Your task to perform on an android device: delete location history Image 0: 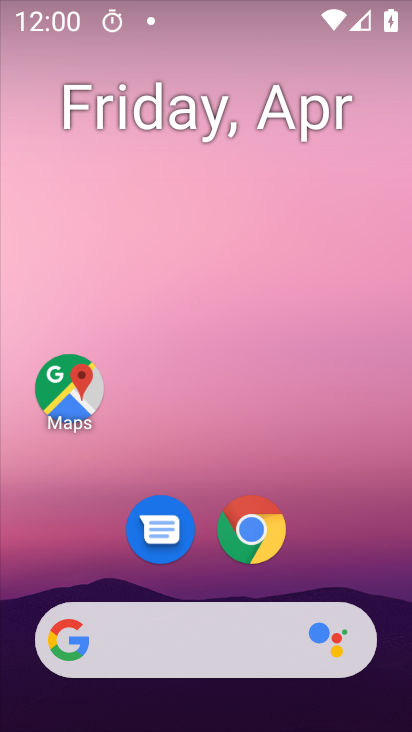
Step 0: drag from (289, 566) to (319, 178)
Your task to perform on an android device: delete location history Image 1: 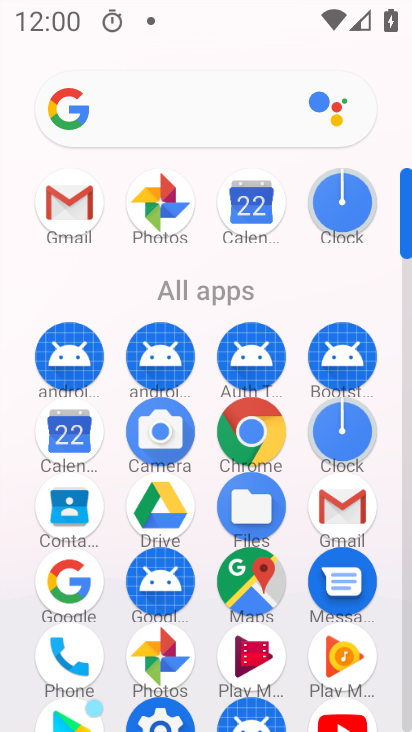
Step 1: drag from (203, 547) to (247, 222)
Your task to perform on an android device: delete location history Image 2: 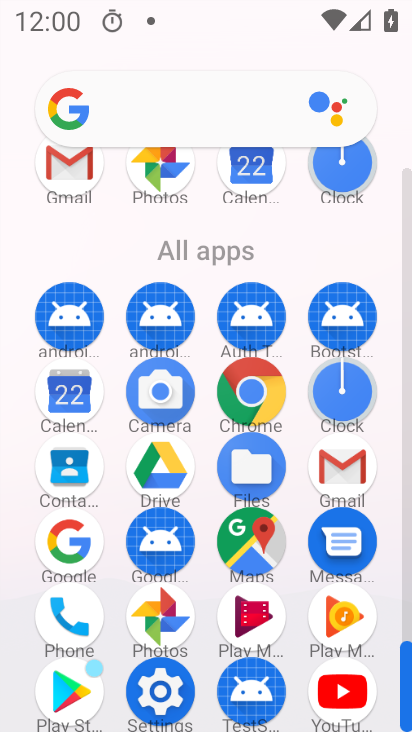
Step 2: click (159, 699)
Your task to perform on an android device: delete location history Image 3: 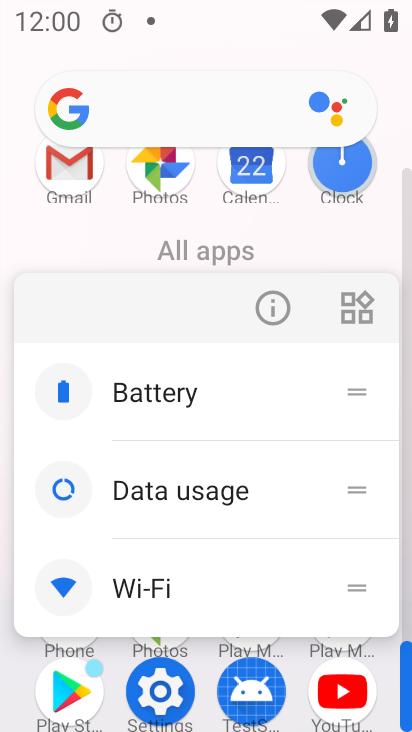
Step 3: click (159, 699)
Your task to perform on an android device: delete location history Image 4: 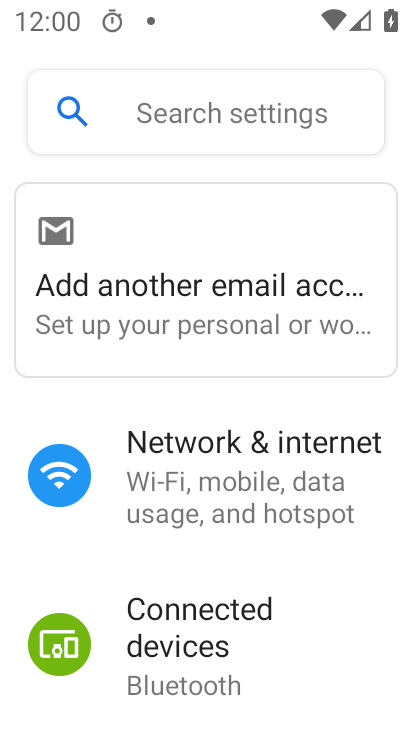
Step 4: drag from (178, 640) to (180, 400)
Your task to perform on an android device: delete location history Image 5: 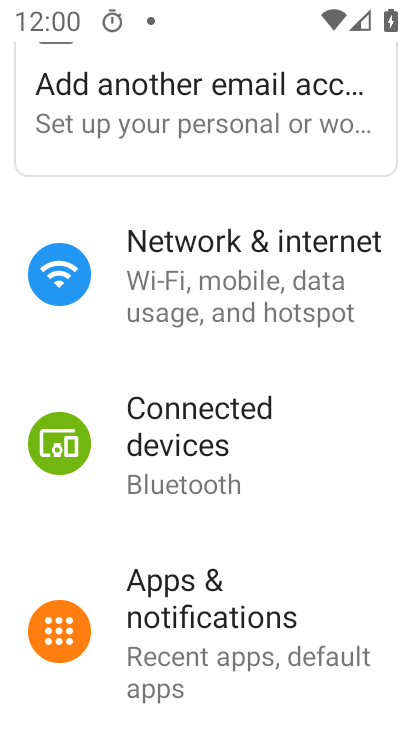
Step 5: drag from (158, 620) to (251, 263)
Your task to perform on an android device: delete location history Image 6: 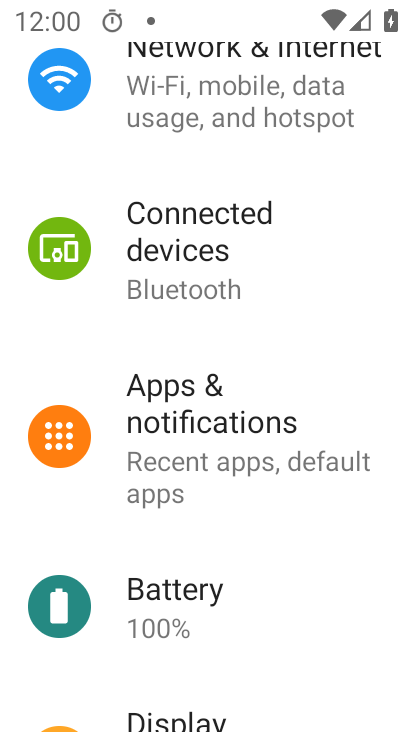
Step 6: drag from (171, 610) to (270, 154)
Your task to perform on an android device: delete location history Image 7: 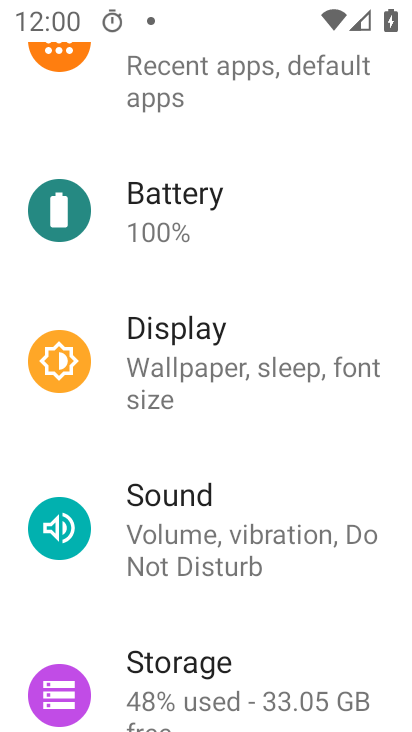
Step 7: drag from (193, 583) to (292, 131)
Your task to perform on an android device: delete location history Image 8: 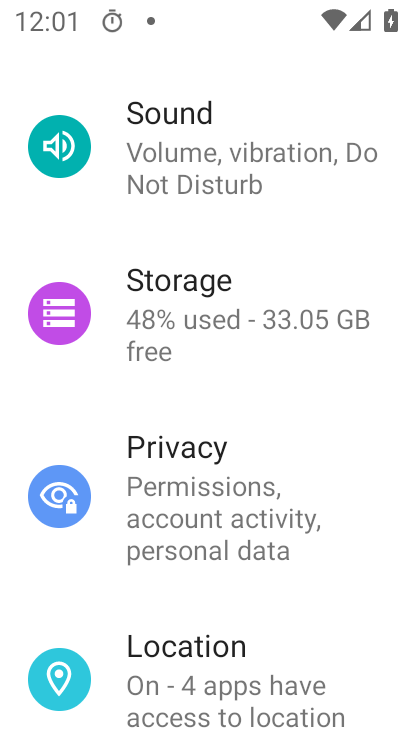
Step 8: click (153, 665)
Your task to perform on an android device: delete location history Image 9: 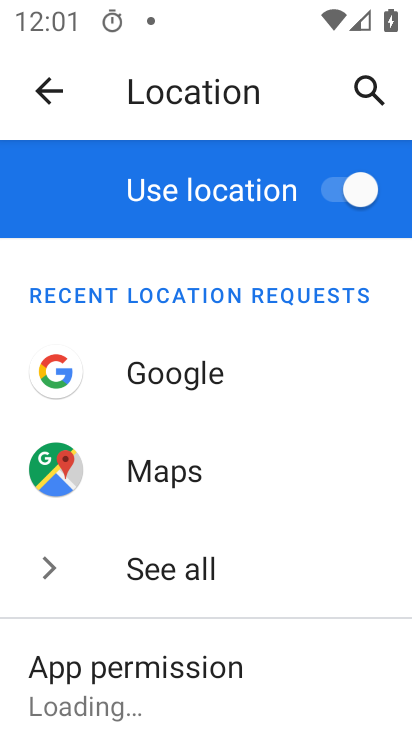
Step 9: drag from (118, 618) to (252, 170)
Your task to perform on an android device: delete location history Image 10: 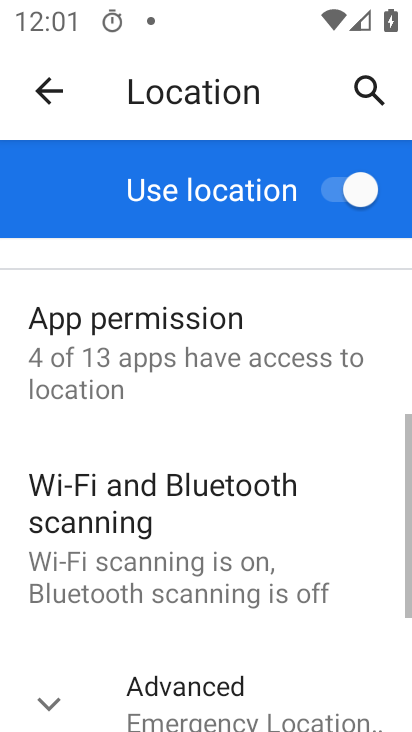
Step 10: drag from (177, 611) to (232, 348)
Your task to perform on an android device: delete location history Image 11: 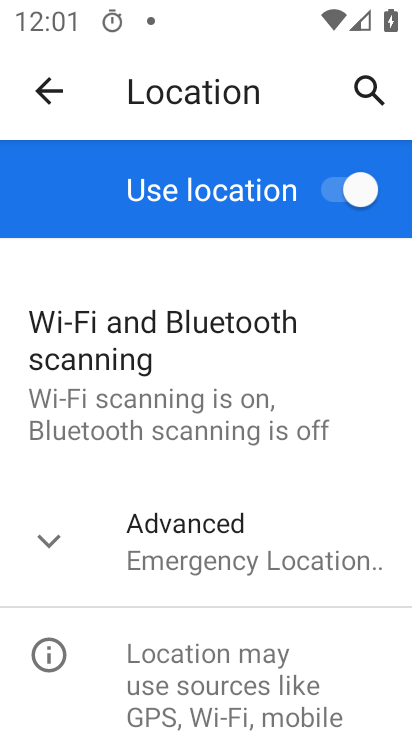
Step 11: press home button
Your task to perform on an android device: delete location history Image 12: 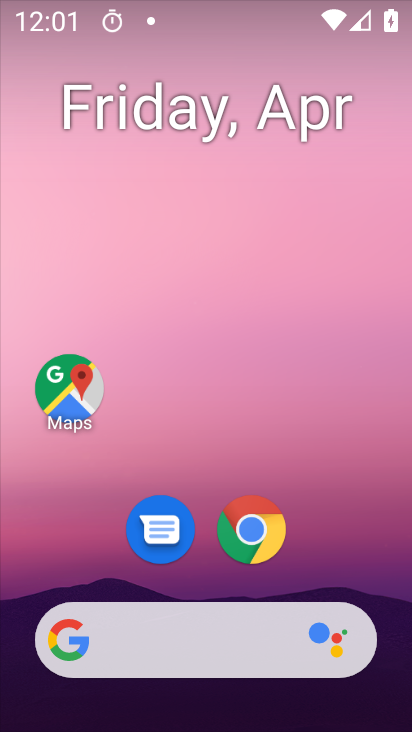
Step 12: click (75, 374)
Your task to perform on an android device: delete location history Image 13: 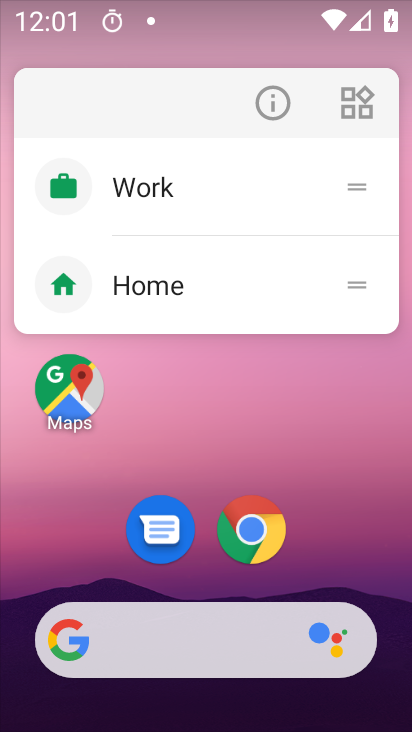
Step 13: click (75, 374)
Your task to perform on an android device: delete location history Image 14: 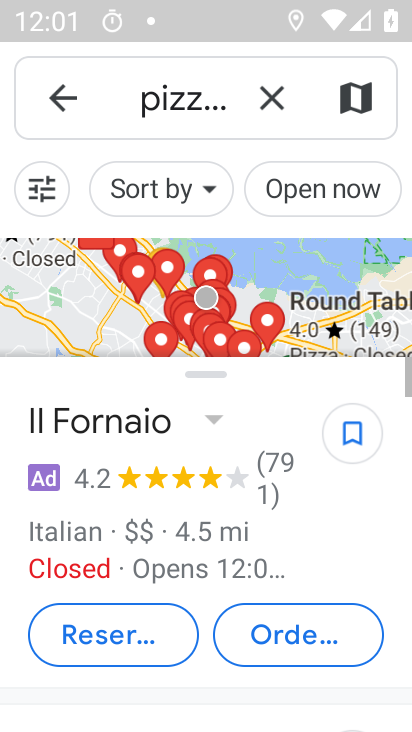
Step 14: click (55, 88)
Your task to perform on an android device: delete location history Image 15: 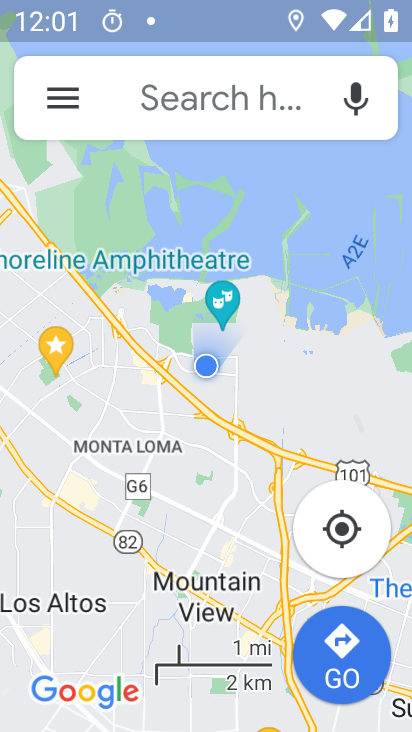
Step 15: click (53, 101)
Your task to perform on an android device: delete location history Image 16: 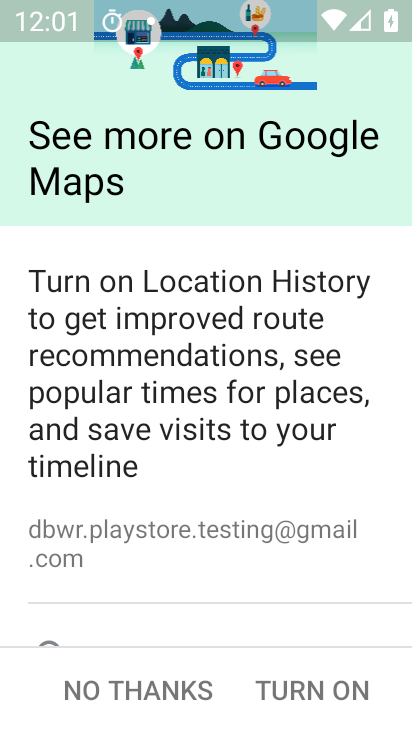
Step 16: click (127, 691)
Your task to perform on an android device: delete location history Image 17: 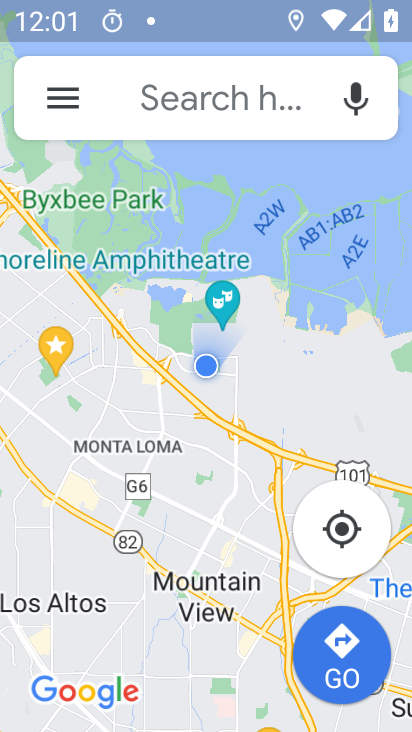
Step 17: click (53, 108)
Your task to perform on an android device: delete location history Image 18: 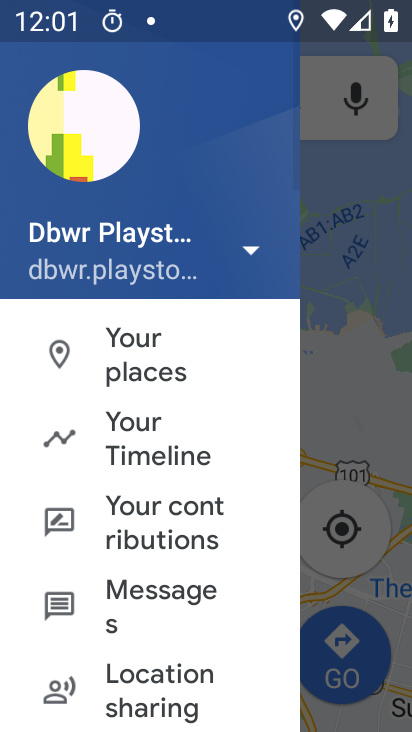
Step 18: click (158, 442)
Your task to perform on an android device: delete location history Image 19: 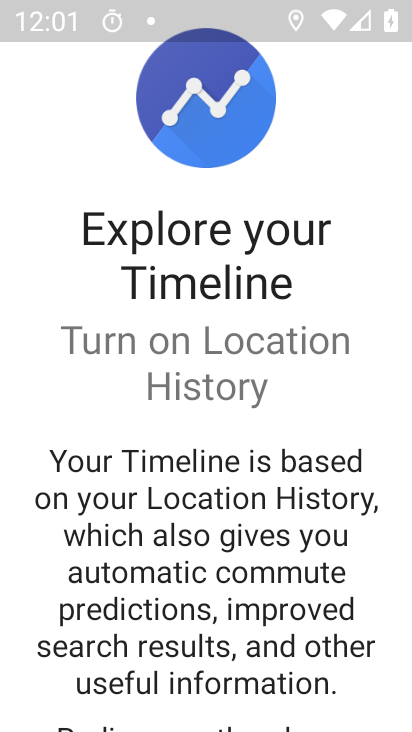
Step 19: drag from (142, 547) to (278, 9)
Your task to perform on an android device: delete location history Image 20: 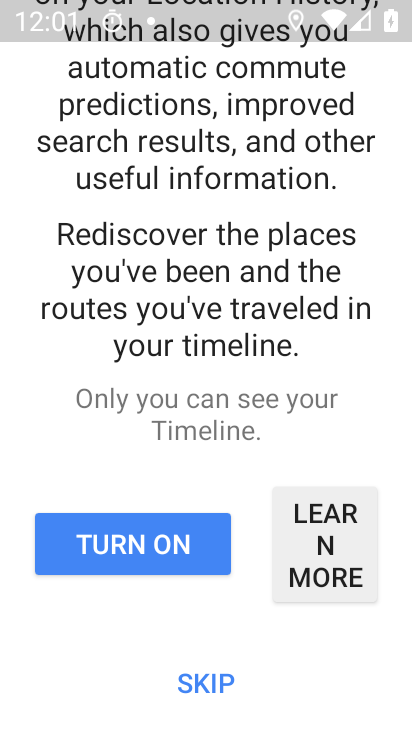
Step 20: click (203, 682)
Your task to perform on an android device: delete location history Image 21: 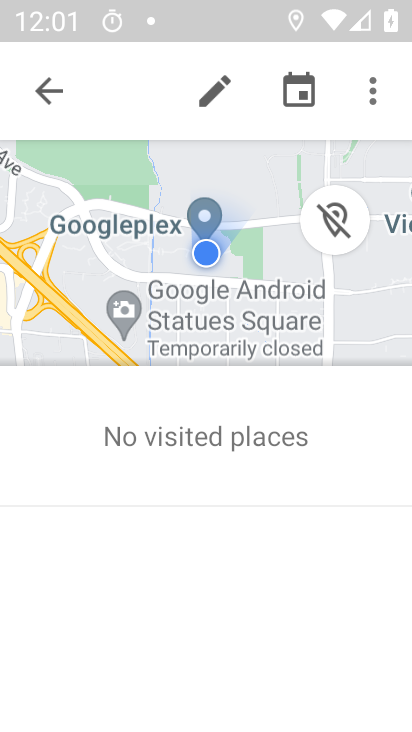
Step 21: click (379, 97)
Your task to perform on an android device: delete location history Image 22: 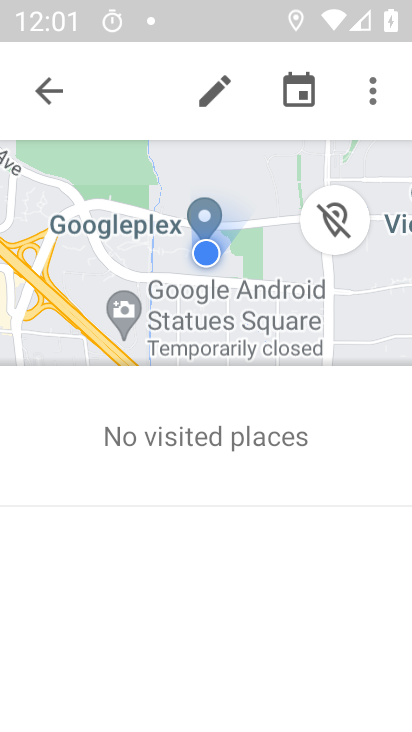
Step 22: click (380, 94)
Your task to perform on an android device: delete location history Image 23: 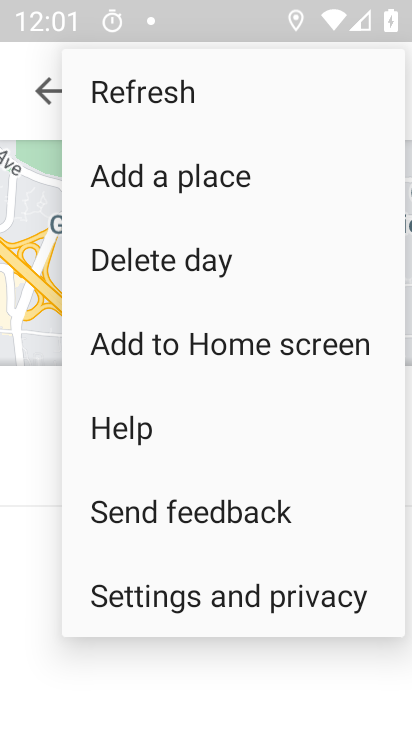
Step 23: click (179, 583)
Your task to perform on an android device: delete location history Image 24: 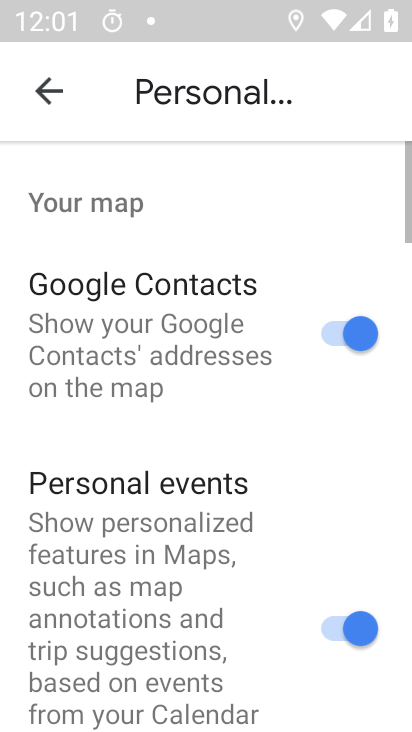
Step 24: drag from (154, 524) to (206, 242)
Your task to perform on an android device: delete location history Image 25: 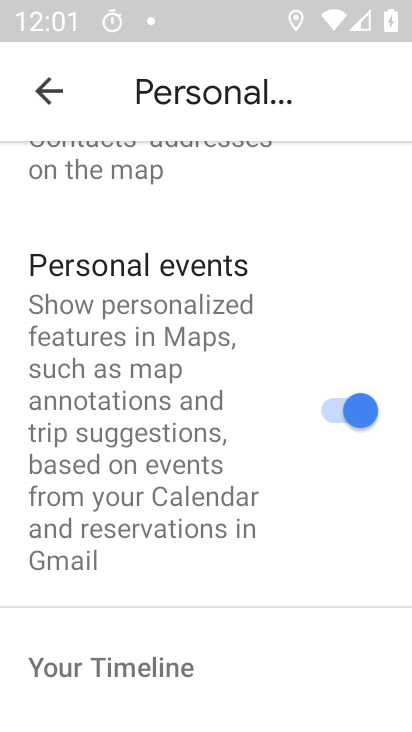
Step 25: drag from (133, 613) to (248, 154)
Your task to perform on an android device: delete location history Image 26: 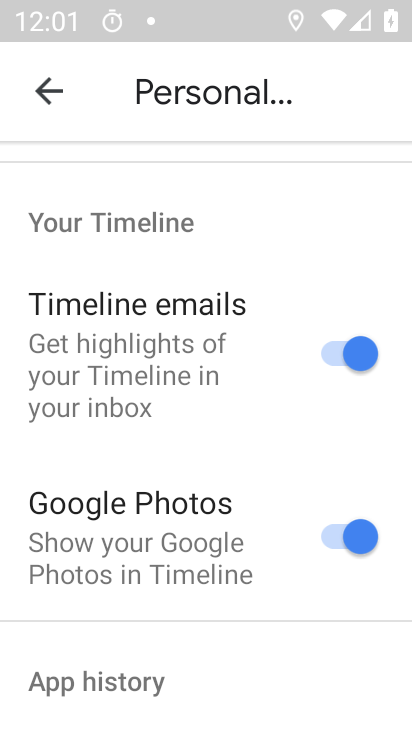
Step 26: drag from (178, 451) to (239, 121)
Your task to perform on an android device: delete location history Image 27: 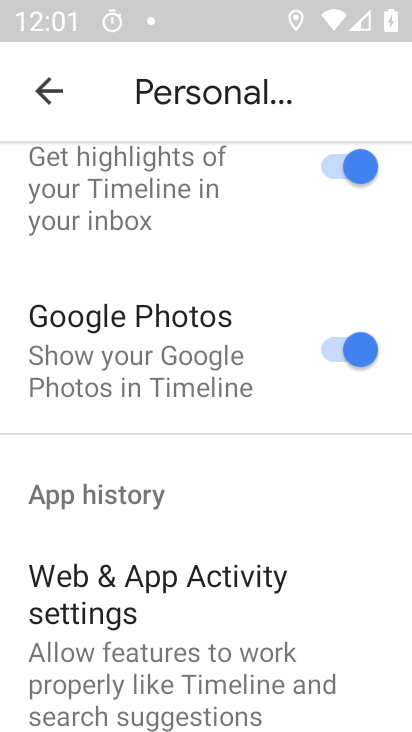
Step 27: drag from (128, 635) to (209, 269)
Your task to perform on an android device: delete location history Image 28: 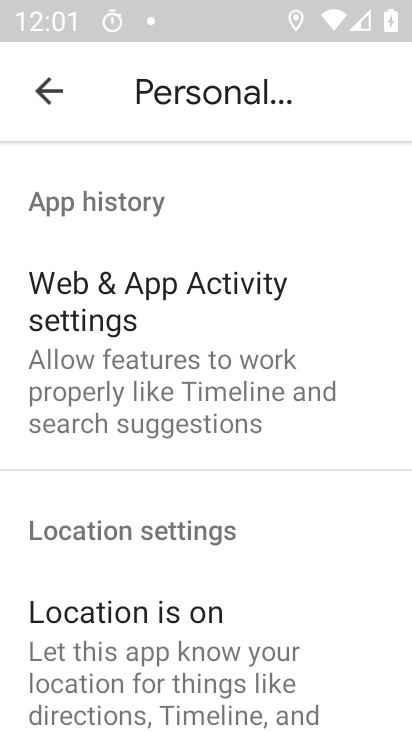
Step 28: drag from (150, 556) to (168, 359)
Your task to perform on an android device: delete location history Image 29: 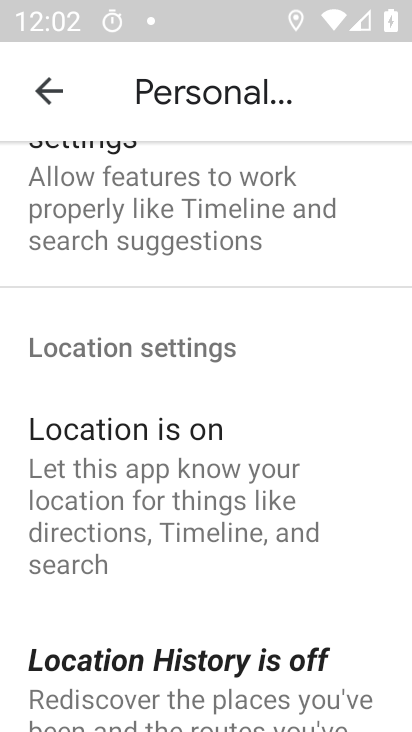
Step 29: drag from (158, 451) to (227, 174)
Your task to perform on an android device: delete location history Image 30: 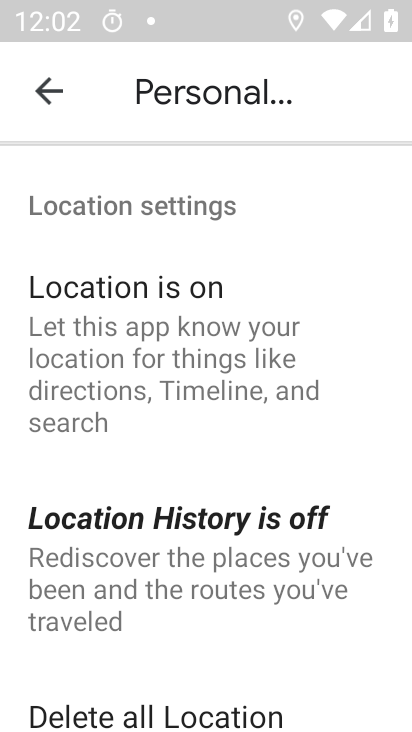
Step 30: drag from (161, 667) to (232, 328)
Your task to perform on an android device: delete location history Image 31: 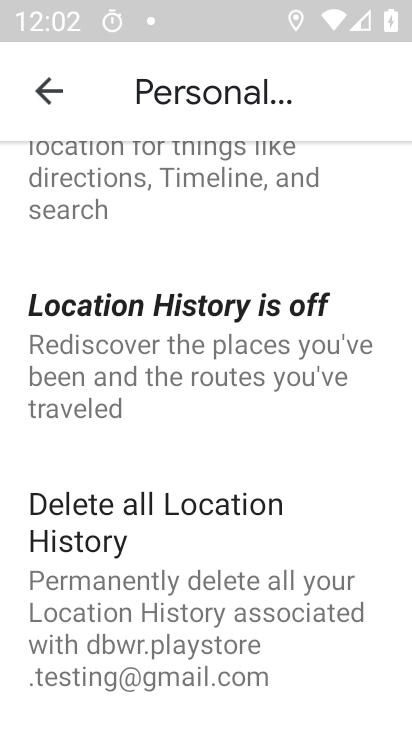
Step 31: click (129, 508)
Your task to perform on an android device: delete location history Image 32: 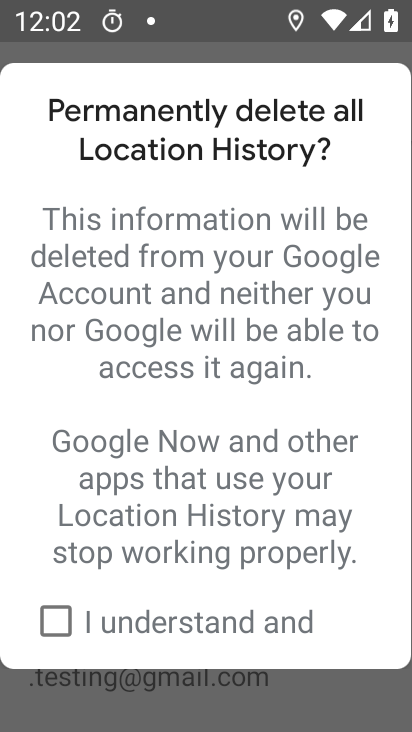
Step 32: click (55, 621)
Your task to perform on an android device: delete location history Image 33: 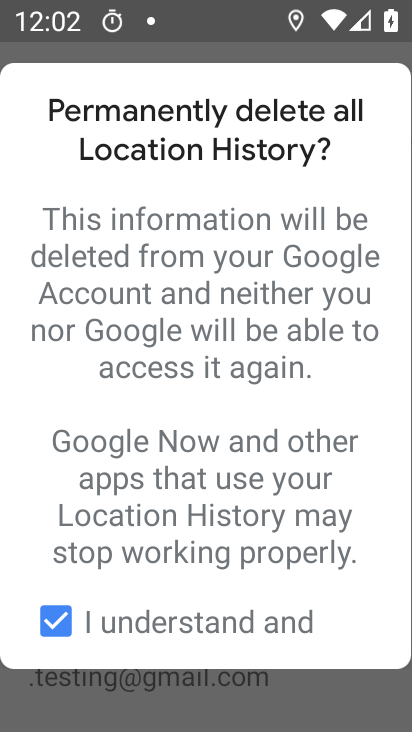
Step 33: drag from (225, 568) to (275, 218)
Your task to perform on an android device: delete location history Image 34: 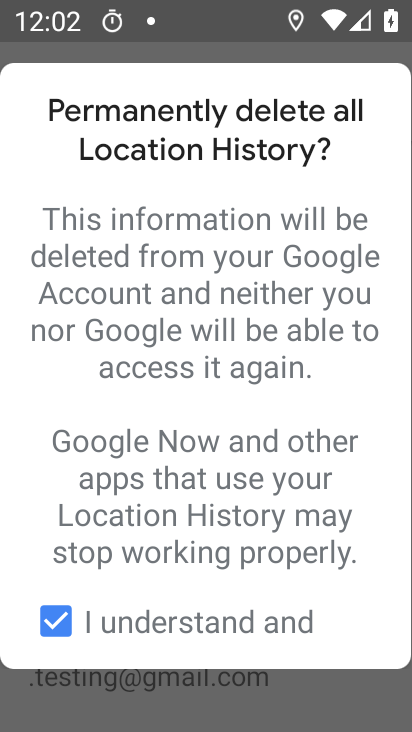
Step 34: drag from (183, 560) to (238, 200)
Your task to perform on an android device: delete location history Image 35: 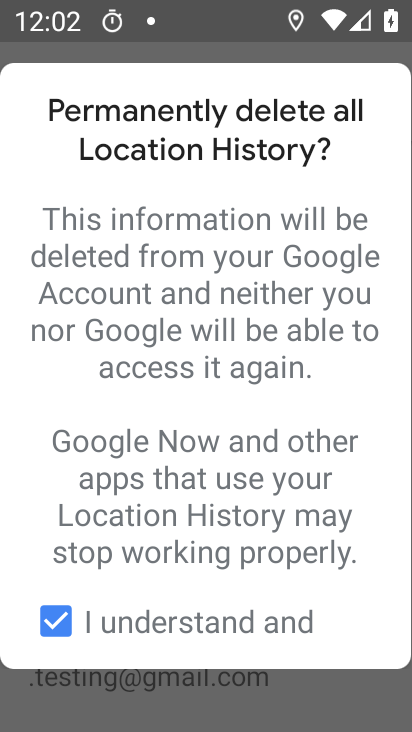
Step 35: click (346, 666)
Your task to perform on an android device: delete location history Image 36: 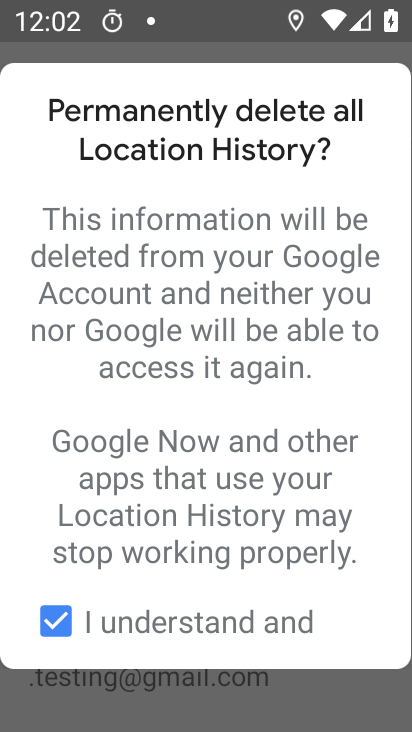
Step 36: task complete